Your task to perform on an android device: Open calendar and show me the fourth week of next month Image 0: 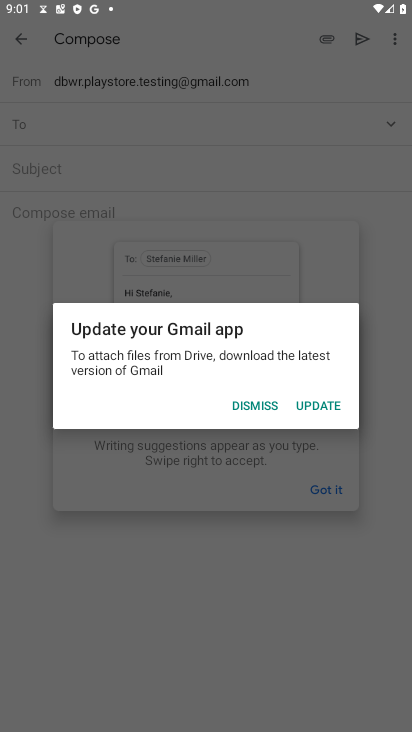
Step 0: press home button
Your task to perform on an android device: Open calendar and show me the fourth week of next month Image 1: 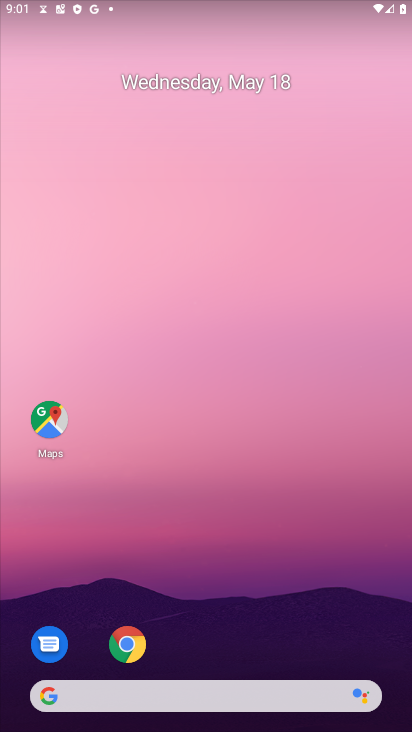
Step 1: drag from (243, 624) to (236, 93)
Your task to perform on an android device: Open calendar and show me the fourth week of next month Image 2: 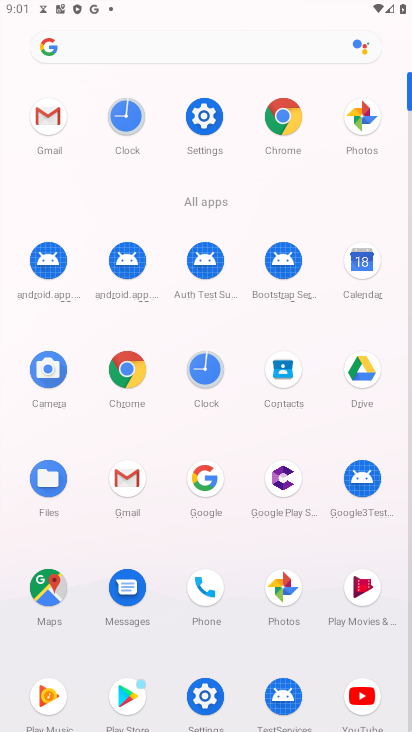
Step 2: click (366, 262)
Your task to perform on an android device: Open calendar and show me the fourth week of next month Image 3: 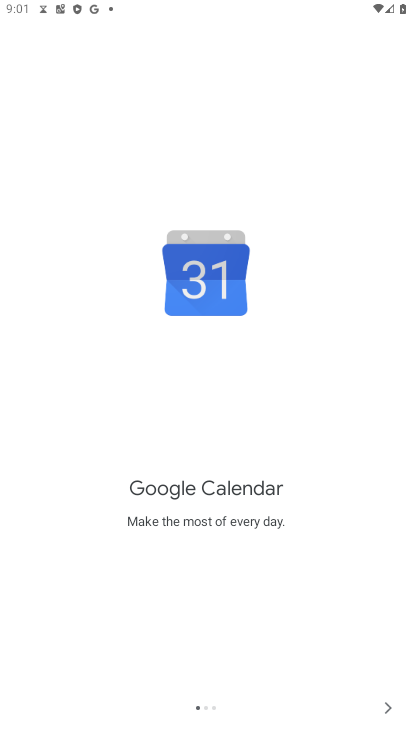
Step 3: click (387, 703)
Your task to perform on an android device: Open calendar and show me the fourth week of next month Image 4: 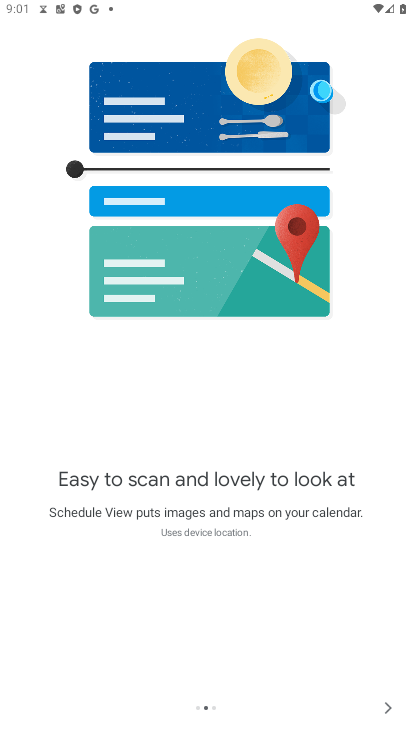
Step 4: click (387, 703)
Your task to perform on an android device: Open calendar and show me the fourth week of next month Image 5: 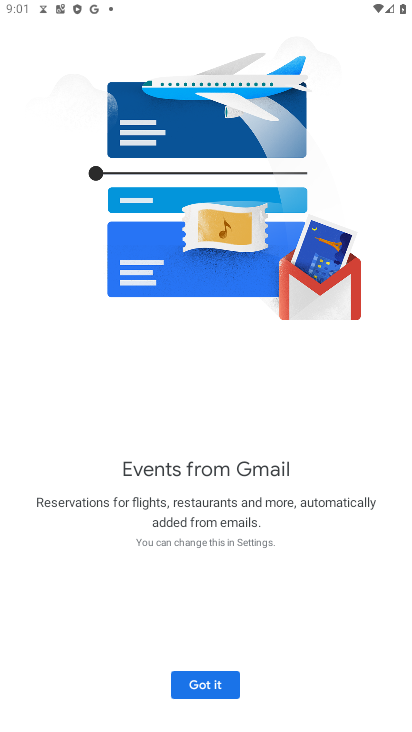
Step 5: click (207, 689)
Your task to perform on an android device: Open calendar and show me the fourth week of next month Image 6: 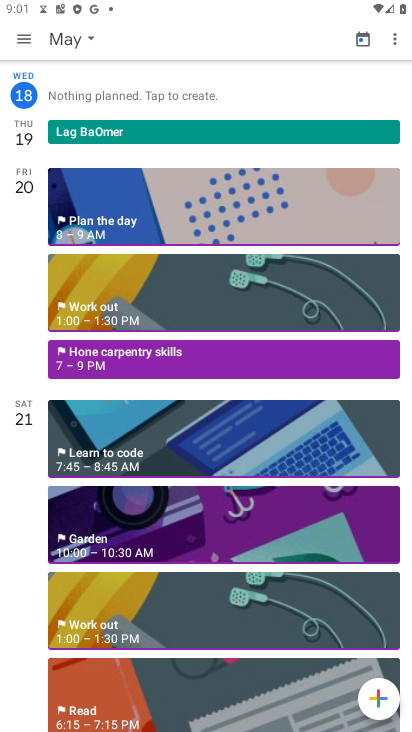
Step 6: click (91, 38)
Your task to perform on an android device: Open calendar and show me the fourth week of next month Image 7: 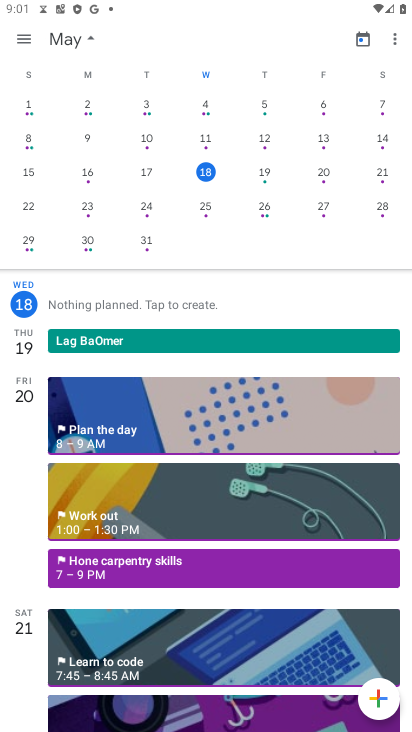
Step 7: drag from (356, 204) to (18, 248)
Your task to perform on an android device: Open calendar and show me the fourth week of next month Image 8: 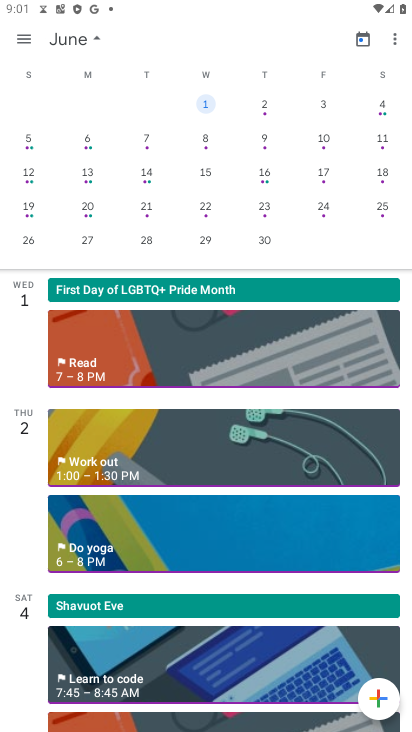
Step 8: click (84, 238)
Your task to perform on an android device: Open calendar and show me the fourth week of next month Image 9: 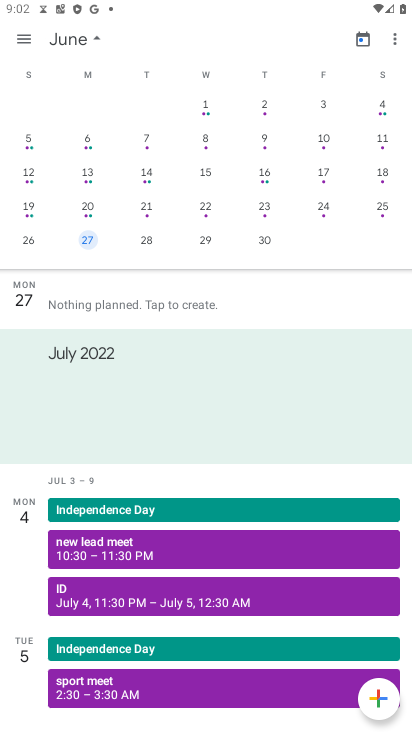
Step 9: click (30, 34)
Your task to perform on an android device: Open calendar and show me the fourth week of next month Image 10: 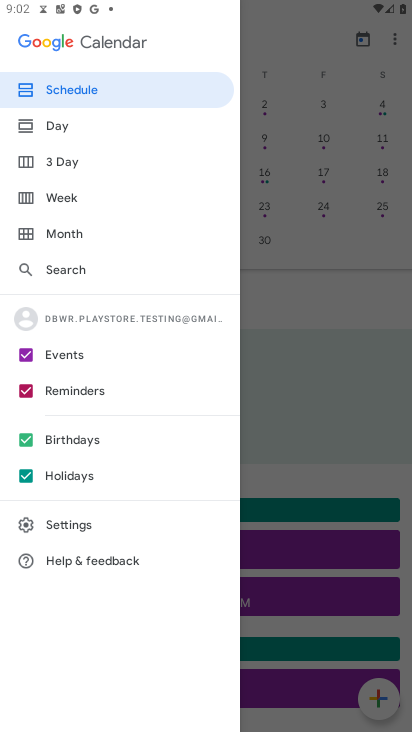
Step 10: click (93, 192)
Your task to perform on an android device: Open calendar and show me the fourth week of next month Image 11: 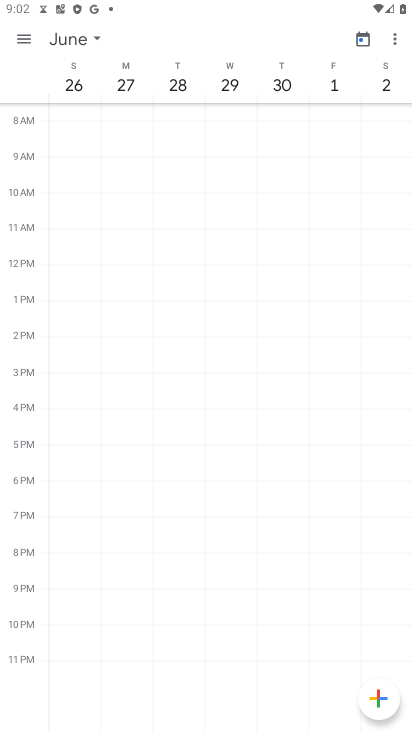
Step 11: task complete